Your task to perform on an android device: Show me popular videos on Youtube Image 0: 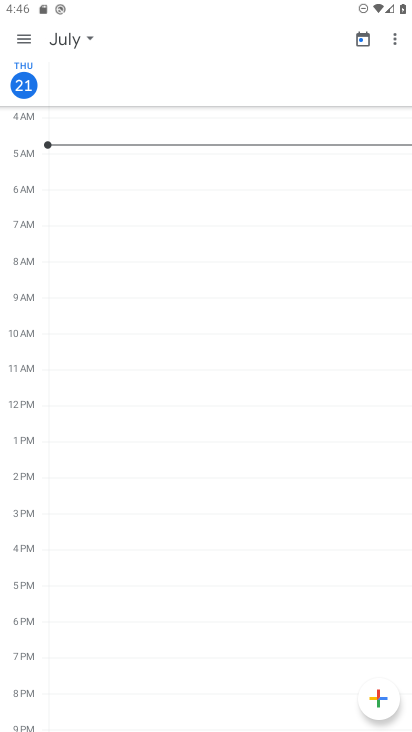
Step 0: press home button
Your task to perform on an android device: Show me popular videos on Youtube Image 1: 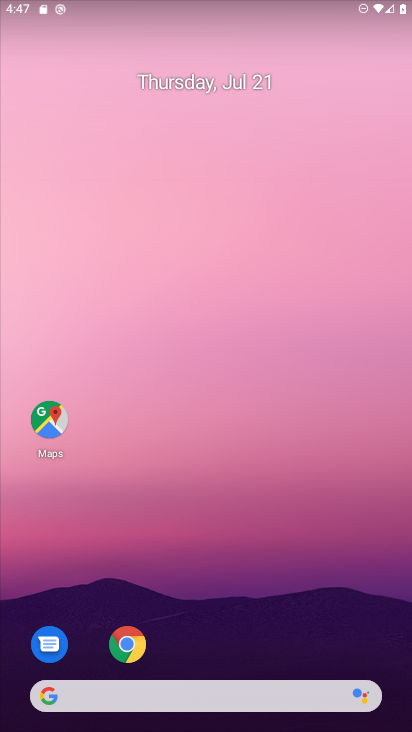
Step 1: drag from (198, 395) to (198, 152)
Your task to perform on an android device: Show me popular videos on Youtube Image 2: 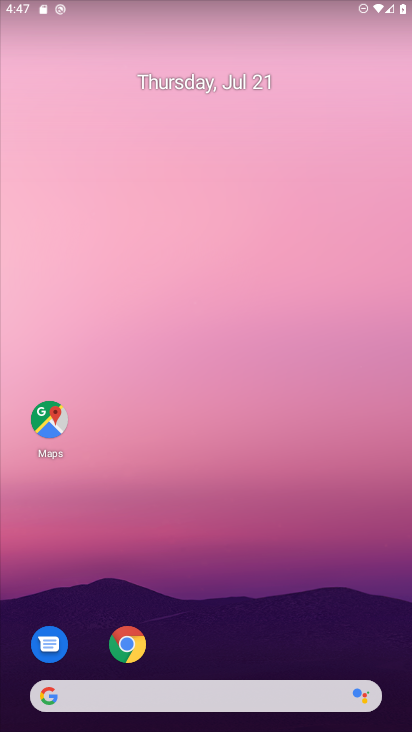
Step 2: drag from (192, 568) to (222, 11)
Your task to perform on an android device: Show me popular videos on Youtube Image 3: 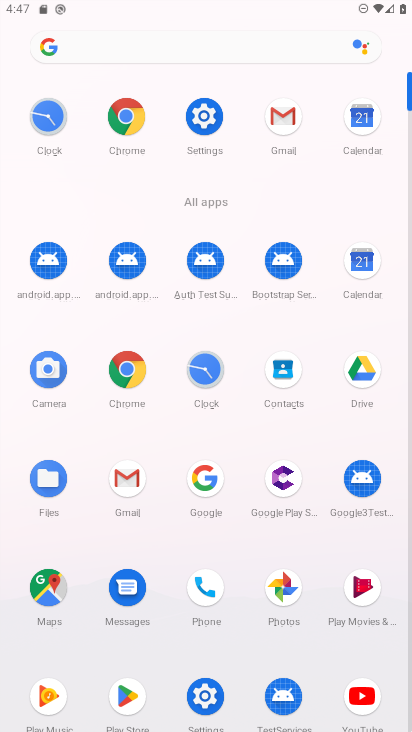
Step 3: click (360, 689)
Your task to perform on an android device: Show me popular videos on Youtube Image 4: 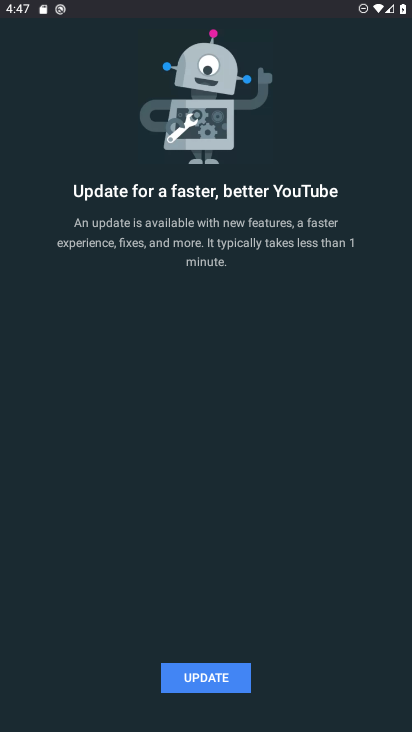
Step 4: click (220, 688)
Your task to perform on an android device: Show me popular videos on Youtube Image 5: 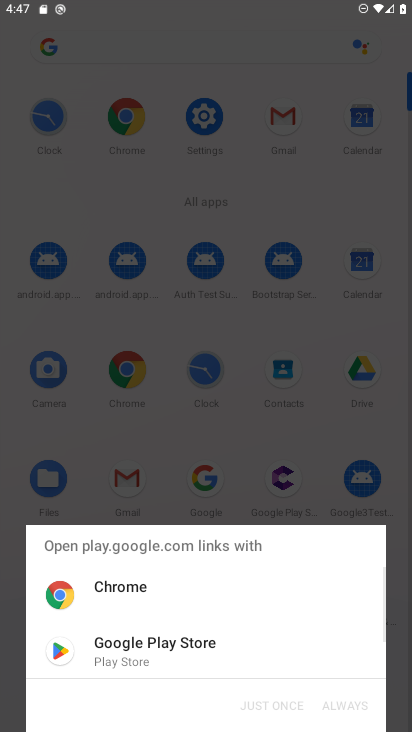
Step 5: click (180, 655)
Your task to perform on an android device: Show me popular videos on Youtube Image 6: 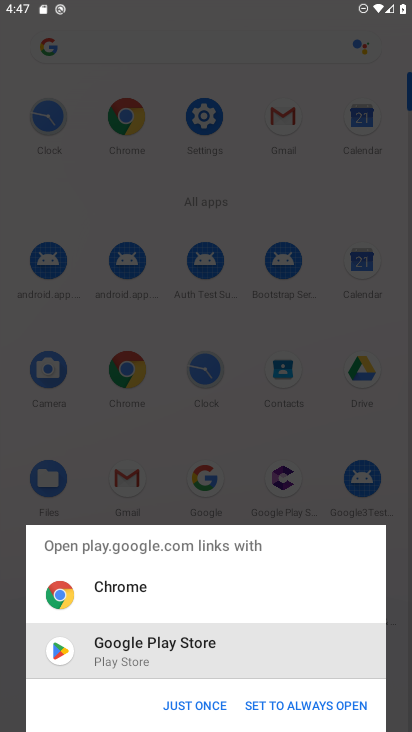
Step 6: click (278, 698)
Your task to perform on an android device: Show me popular videos on Youtube Image 7: 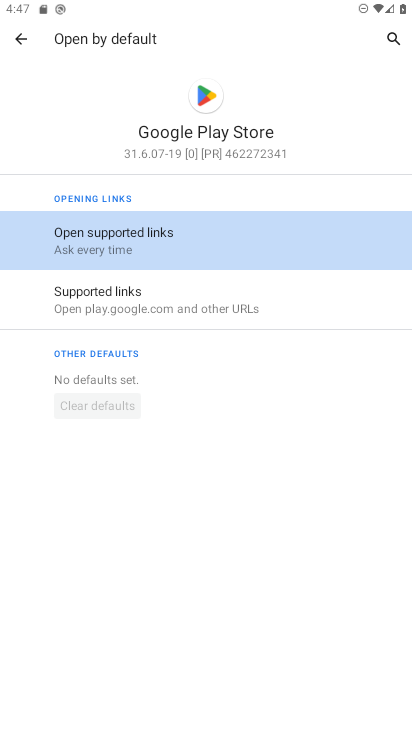
Step 7: click (143, 235)
Your task to perform on an android device: Show me popular videos on Youtube Image 8: 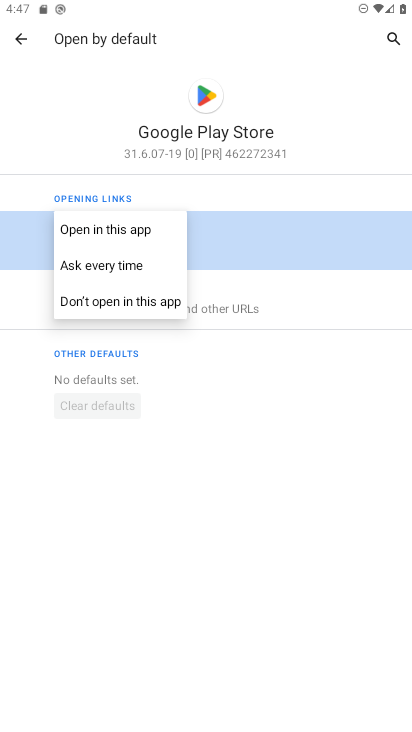
Step 8: click (128, 227)
Your task to perform on an android device: Show me popular videos on Youtube Image 9: 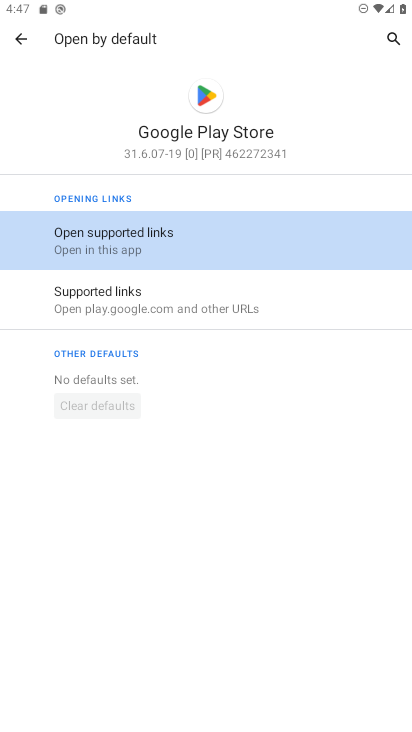
Step 9: click (21, 36)
Your task to perform on an android device: Show me popular videos on Youtube Image 10: 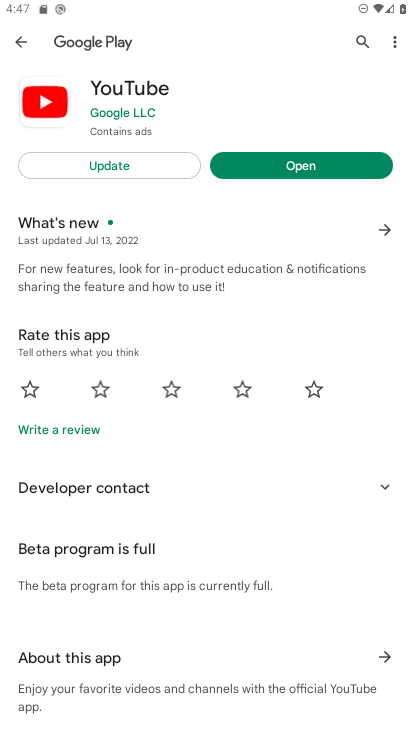
Step 10: click (90, 152)
Your task to perform on an android device: Show me popular videos on Youtube Image 11: 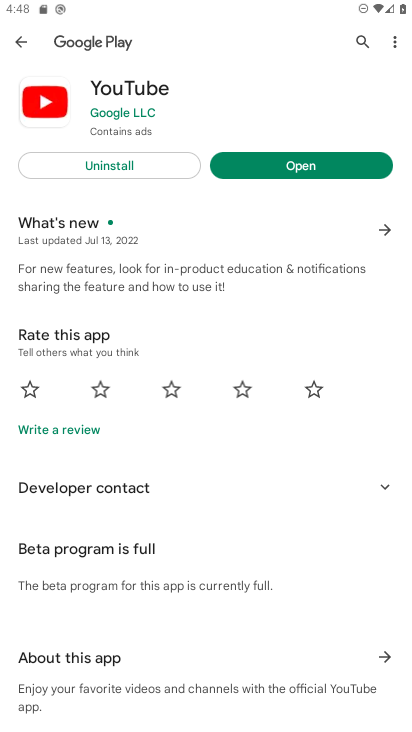
Step 11: click (310, 161)
Your task to perform on an android device: Show me popular videos on Youtube Image 12: 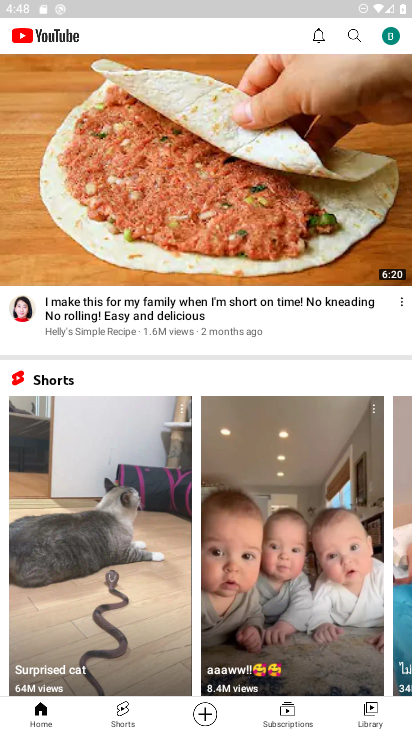
Step 12: task complete